Your task to perform on an android device: see sites visited before in the chrome app Image 0: 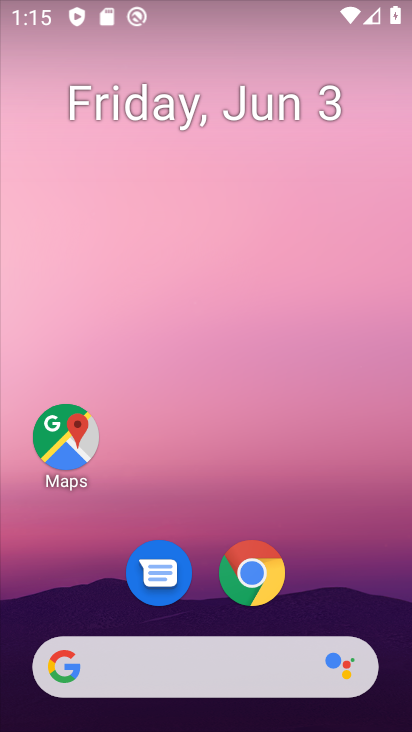
Step 0: task complete